Your task to perform on an android device: empty trash in the gmail app Image 0: 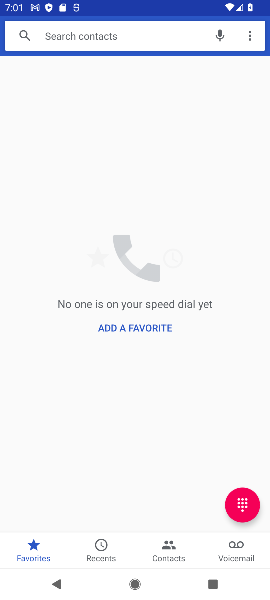
Step 0: press home button
Your task to perform on an android device: empty trash in the gmail app Image 1: 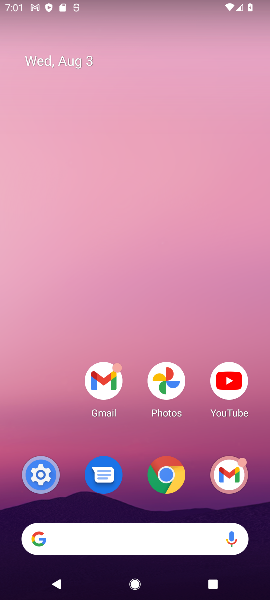
Step 1: click (109, 393)
Your task to perform on an android device: empty trash in the gmail app Image 2: 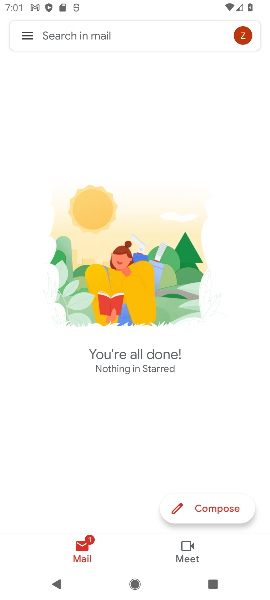
Step 2: click (20, 37)
Your task to perform on an android device: empty trash in the gmail app Image 3: 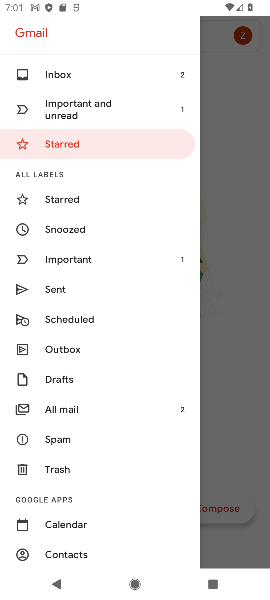
Step 3: click (79, 466)
Your task to perform on an android device: empty trash in the gmail app Image 4: 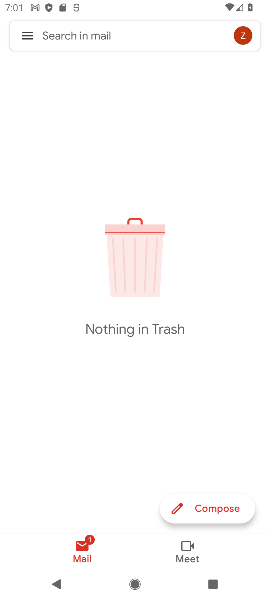
Step 4: task complete